Your task to perform on an android device: toggle notifications settings in the gmail app Image 0: 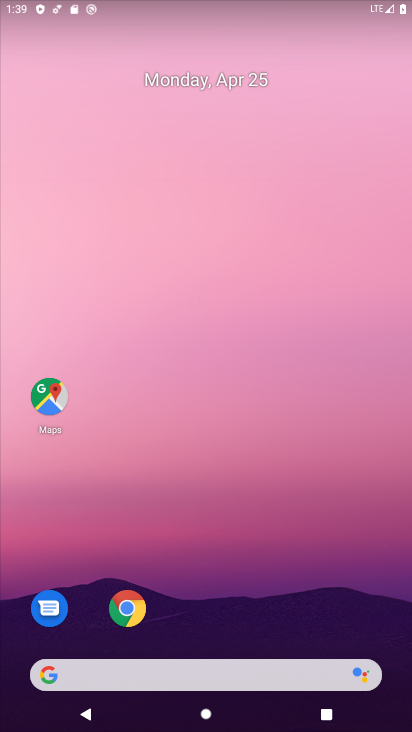
Step 0: drag from (358, 597) to (375, 112)
Your task to perform on an android device: toggle notifications settings in the gmail app Image 1: 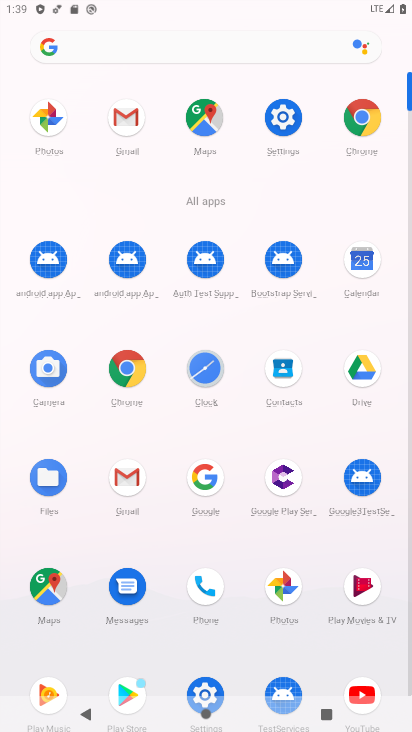
Step 1: click (135, 470)
Your task to perform on an android device: toggle notifications settings in the gmail app Image 2: 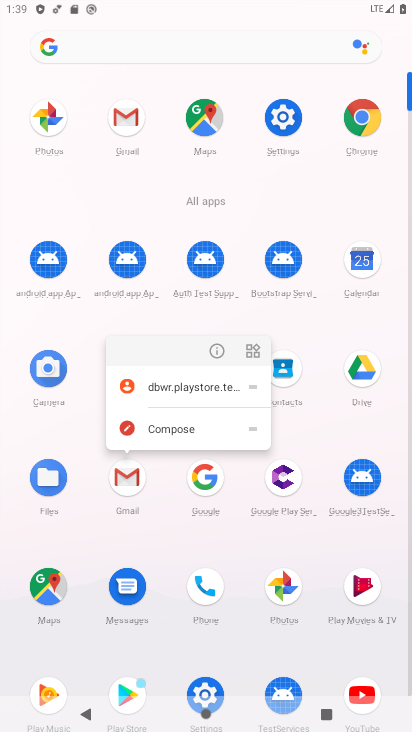
Step 2: click (118, 481)
Your task to perform on an android device: toggle notifications settings in the gmail app Image 3: 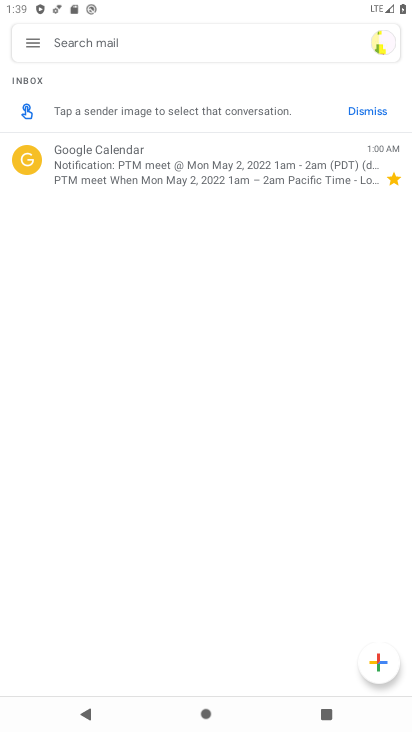
Step 3: click (29, 31)
Your task to perform on an android device: toggle notifications settings in the gmail app Image 4: 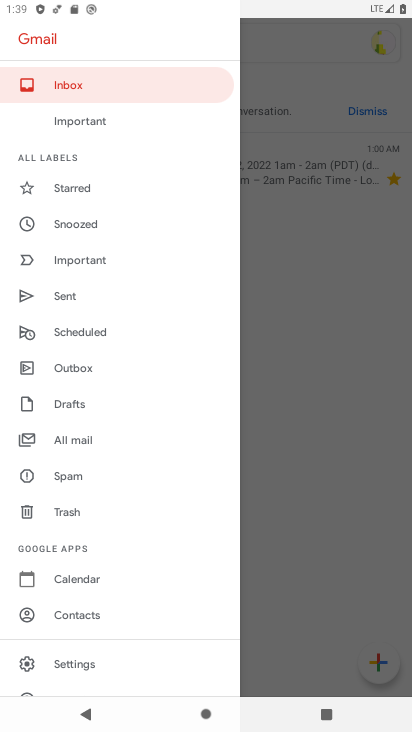
Step 4: drag from (165, 582) to (188, 385)
Your task to perform on an android device: toggle notifications settings in the gmail app Image 5: 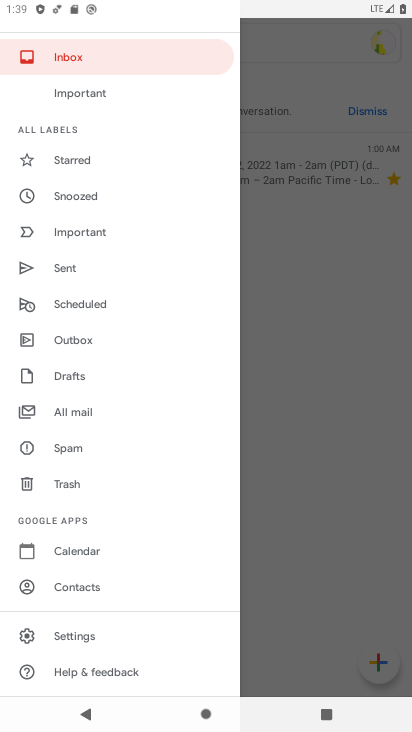
Step 5: click (94, 640)
Your task to perform on an android device: toggle notifications settings in the gmail app Image 6: 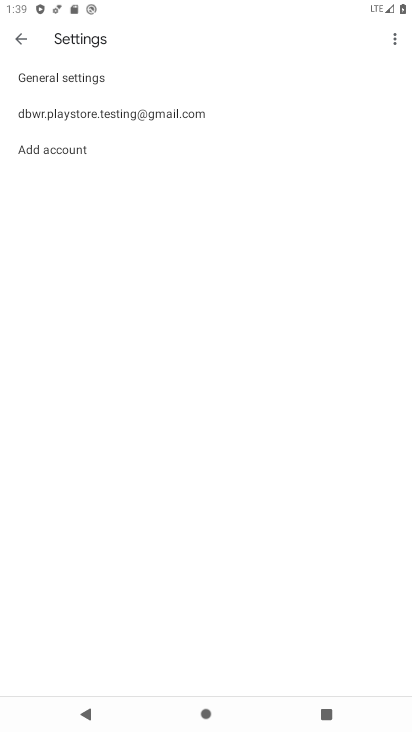
Step 6: click (189, 113)
Your task to perform on an android device: toggle notifications settings in the gmail app Image 7: 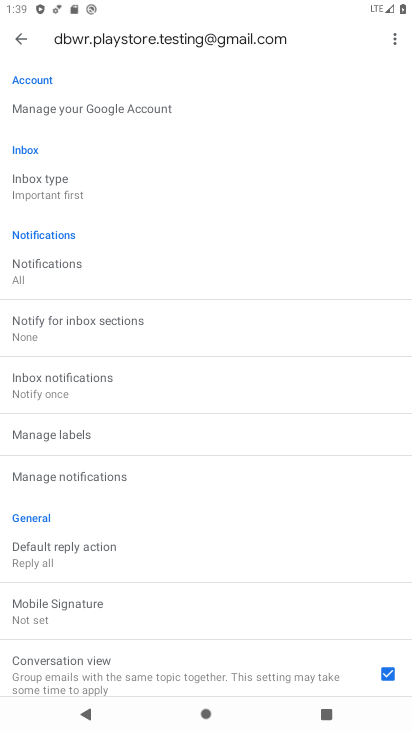
Step 7: drag from (255, 552) to (257, 365)
Your task to perform on an android device: toggle notifications settings in the gmail app Image 8: 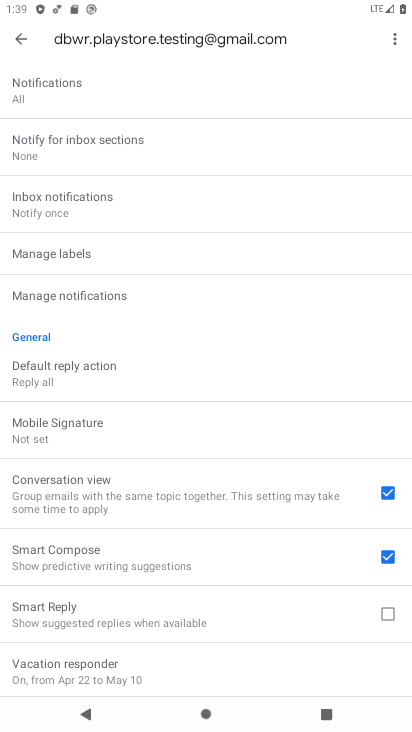
Step 8: drag from (255, 611) to (251, 404)
Your task to perform on an android device: toggle notifications settings in the gmail app Image 9: 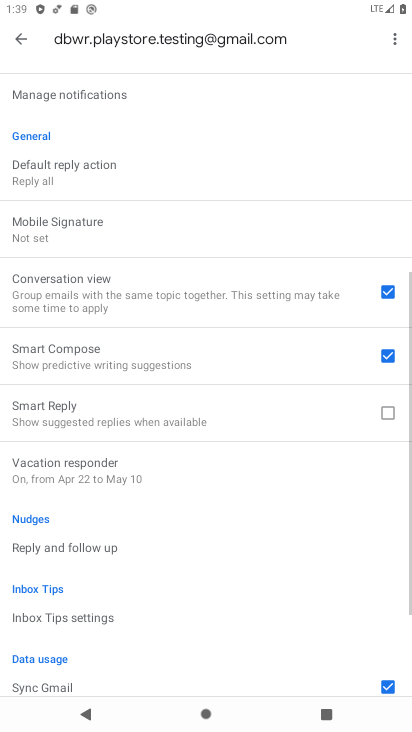
Step 9: drag from (241, 621) to (261, 397)
Your task to perform on an android device: toggle notifications settings in the gmail app Image 10: 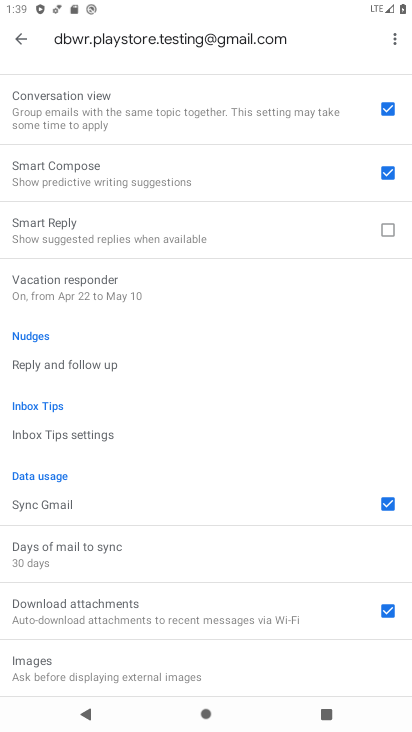
Step 10: drag from (271, 650) to (295, 441)
Your task to perform on an android device: toggle notifications settings in the gmail app Image 11: 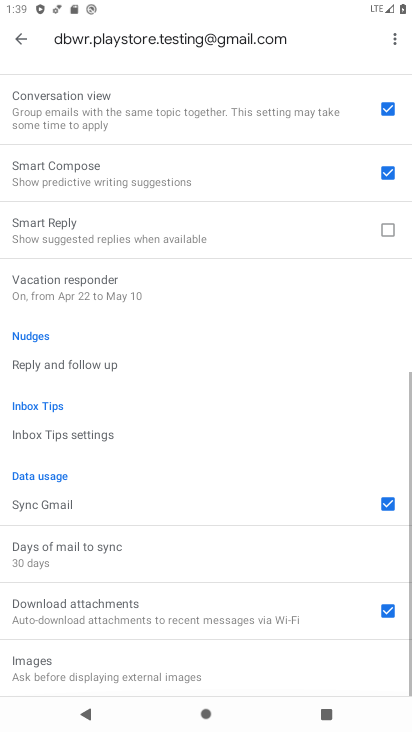
Step 11: drag from (299, 358) to (292, 496)
Your task to perform on an android device: toggle notifications settings in the gmail app Image 12: 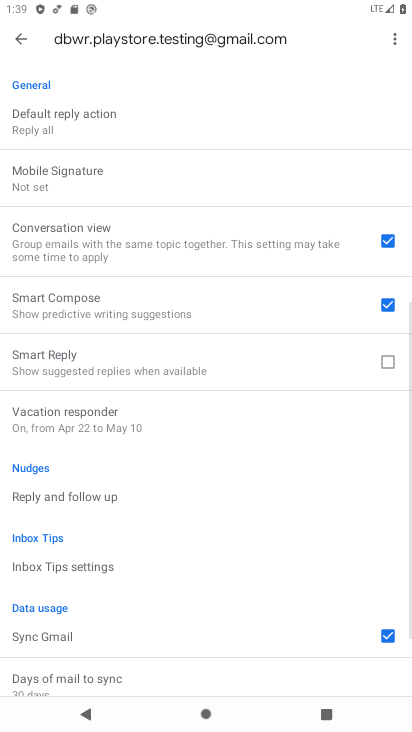
Step 12: drag from (283, 297) to (281, 472)
Your task to perform on an android device: toggle notifications settings in the gmail app Image 13: 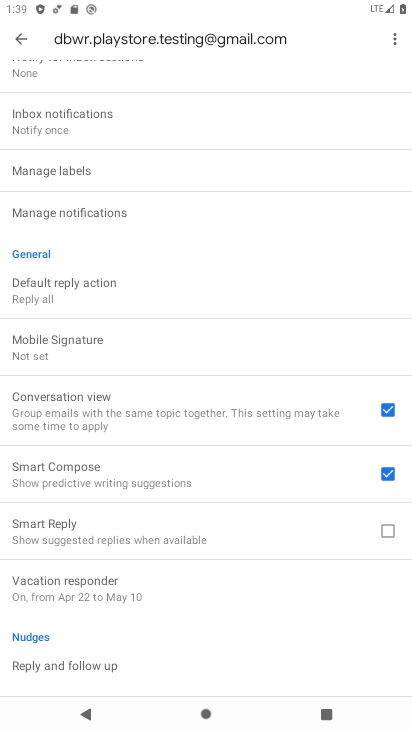
Step 13: drag from (289, 291) to (292, 485)
Your task to perform on an android device: toggle notifications settings in the gmail app Image 14: 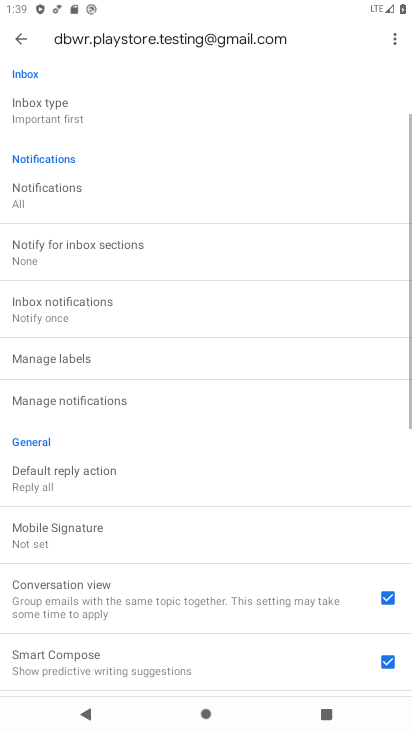
Step 14: drag from (290, 280) to (289, 415)
Your task to perform on an android device: toggle notifications settings in the gmail app Image 15: 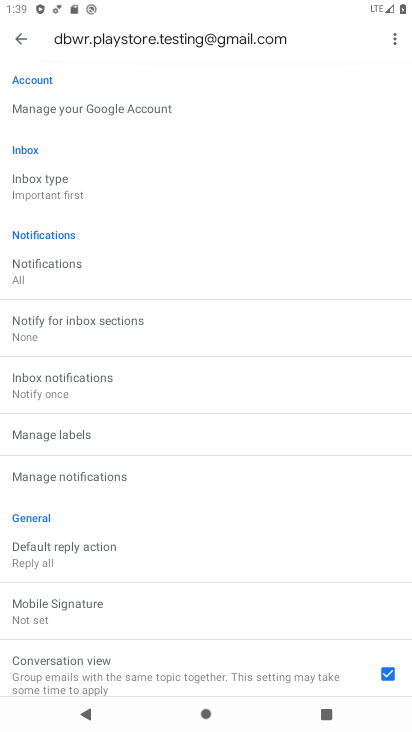
Step 15: drag from (284, 303) to (282, 402)
Your task to perform on an android device: toggle notifications settings in the gmail app Image 16: 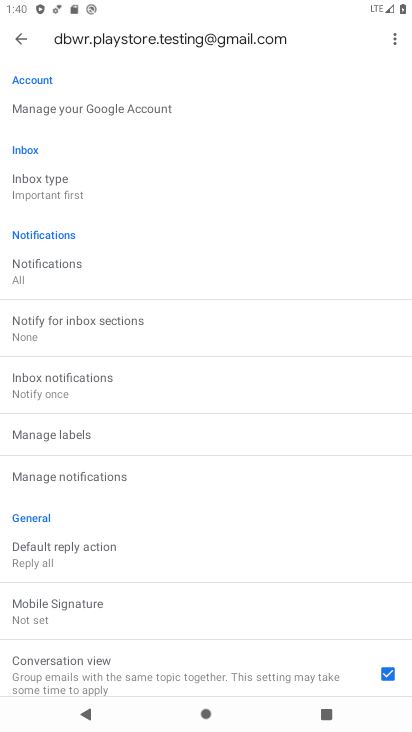
Step 16: click (141, 474)
Your task to perform on an android device: toggle notifications settings in the gmail app Image 17: 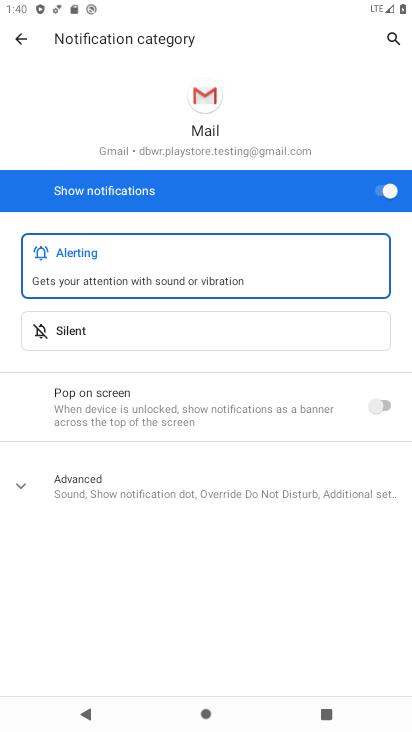
Step 17: click (378, 189)
Your task to perform on an android device: toggle notifications settings in the gmail app Image 18: 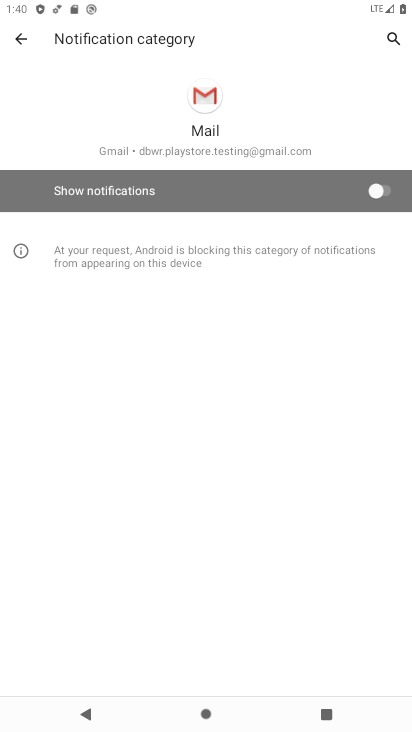
Step 18: task complete